Your task to perform on an android device: Open settings on Google Maps Image 0: 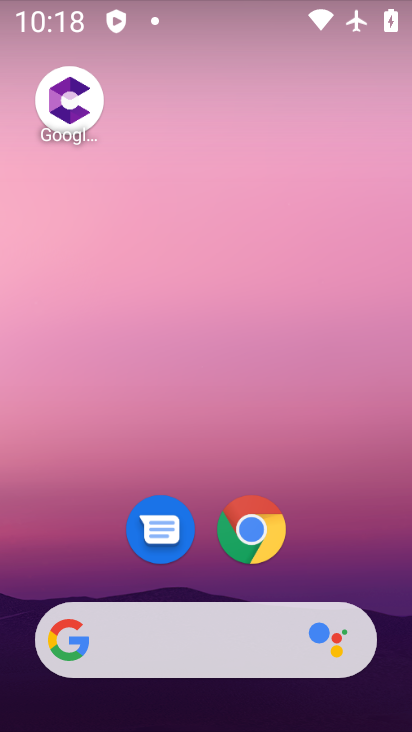
Step 0: drag from (303, 573) to (294, 14)
Your task to perform on an android device: Open settings on Google Maps Image 1: 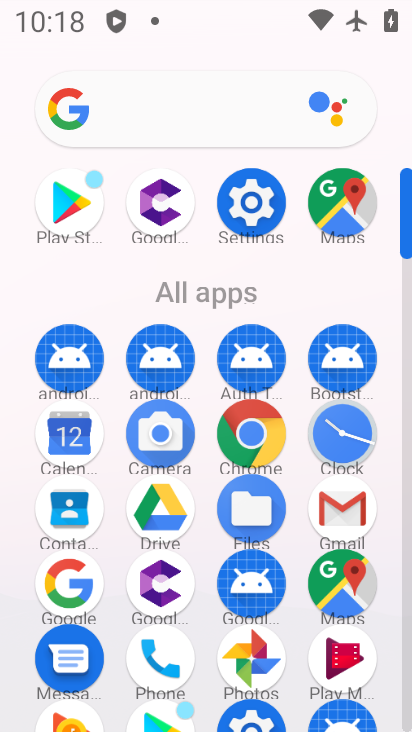
Step 1: click (332, 196)
Your task to perform on an android device: Open settings on Google Maps Image 2: 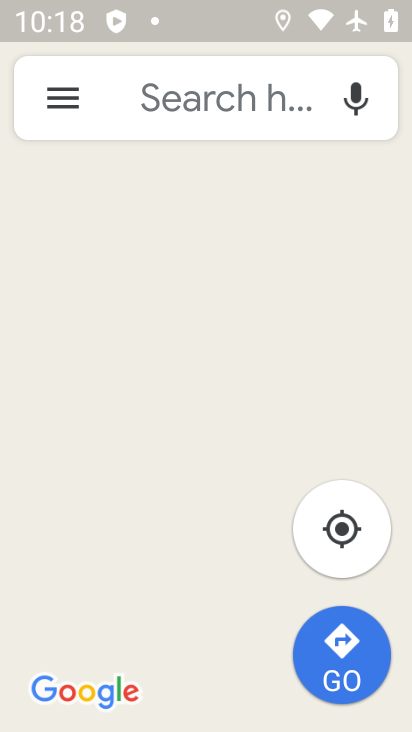
Step 2: click (53, 99)
Your task to perform on an android device: Open settings on Google Maps Image 3: 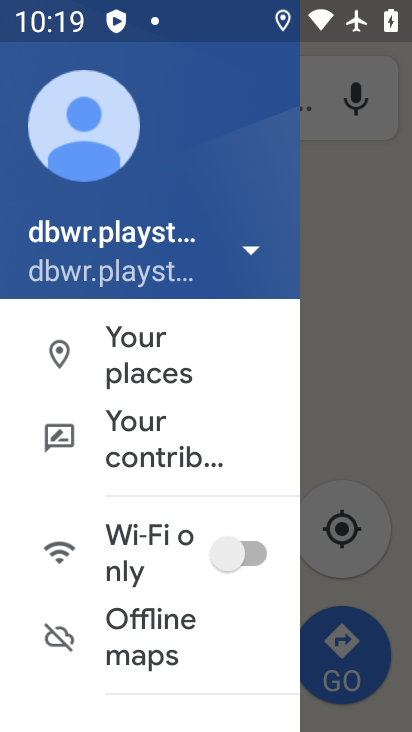
Step 3: drag from (166, 622) to (172, 268)
Your task to perform on an android device: Open settings on Google Maps Image 4: 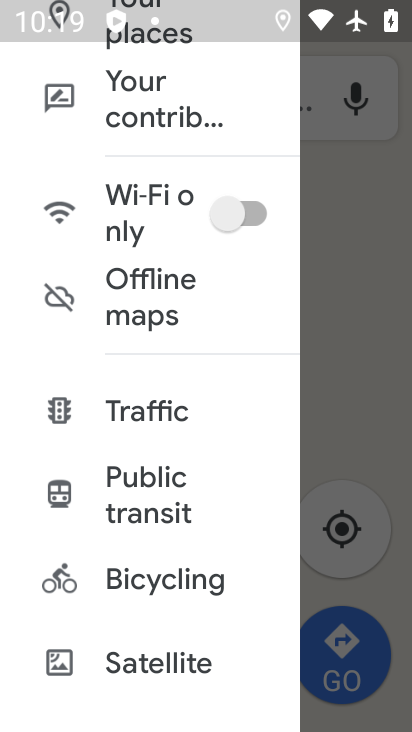
Step 4: drag from (144, 650) to (144, 333)
Your task to perform on an android device: Open settings on Google Maps Image 5: 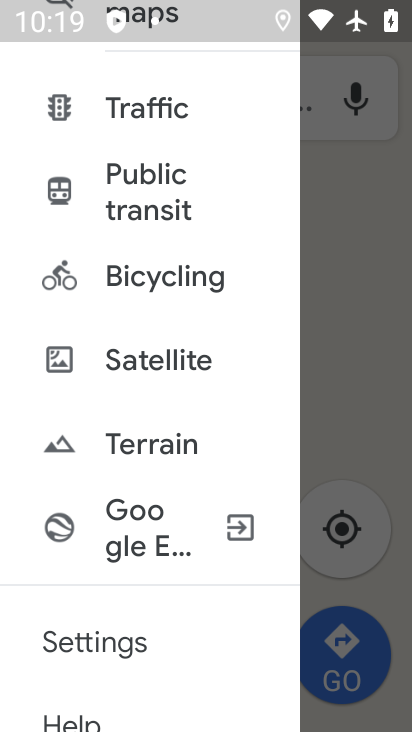
Step 5: click (105, 627)
Your task to perform on an android device: Open settings on Google Maps Image 6: 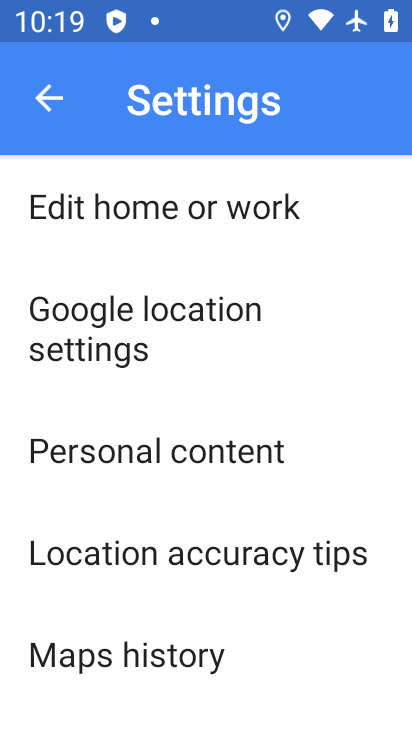
Step 6: task complete